Your task to perform on an android device: change notification settings in the gmail app Image 0: 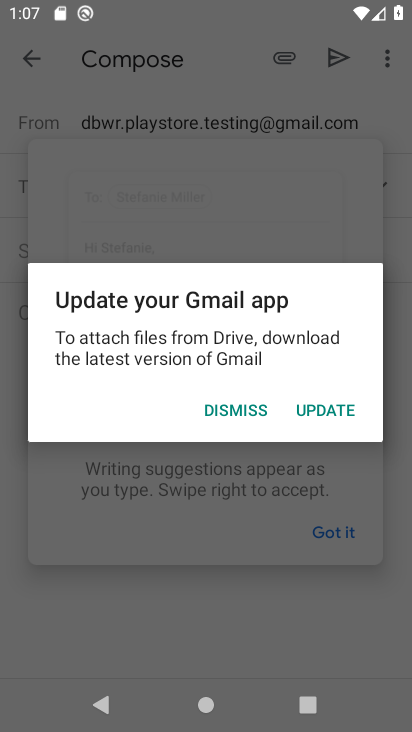
Step 0: press home button
Your task to perform on an android device: change notification settings in the gmail app Image 1: 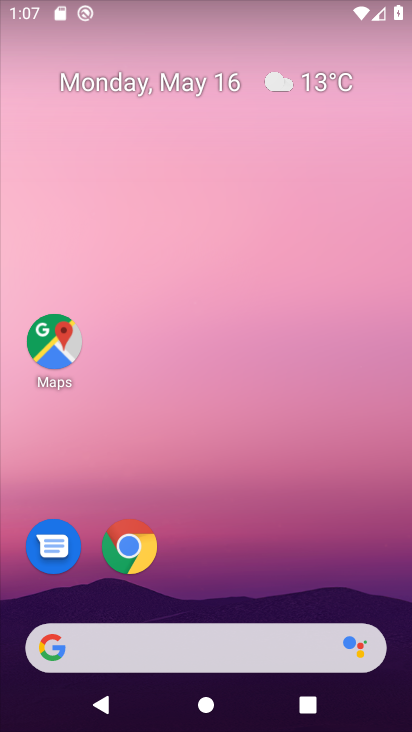
Step 1: drag from (203, 728) to (200, 203)
Your task to perform on an android device: change notification settings in the gmail app Image 2: 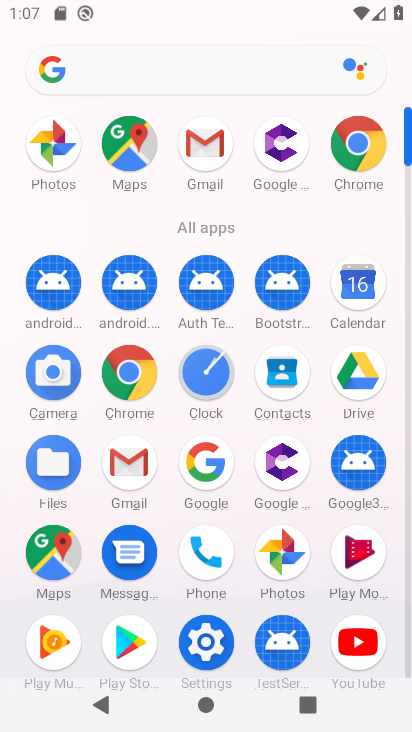
Step 2: click (128, 457)
Your task to perform on an android device: change notification settings in the gmail app Image 3: 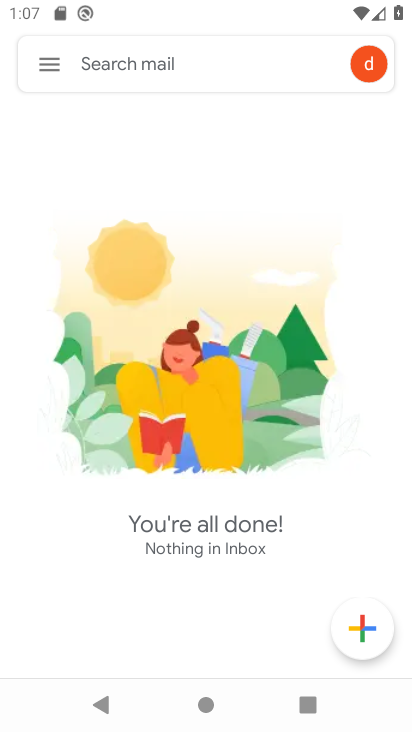
Step 3: click (60, 68)
Your task to perform on an android device: change notification settings in the gmail app Image 4: 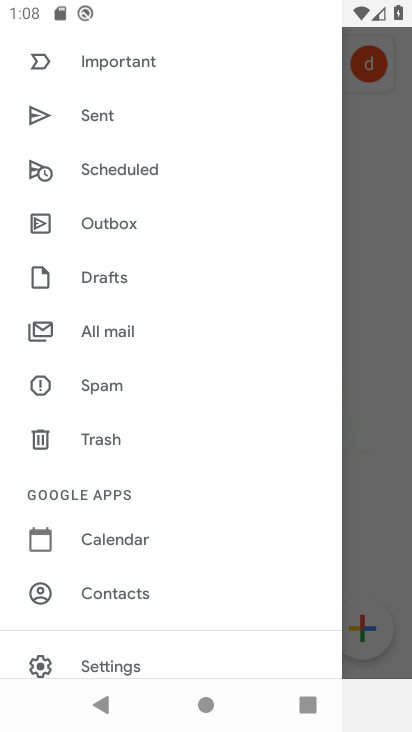
Step 4: drag from (115, 552) to (125, 265)
Your task to perform on an android device: change notification settings in the gmail app Image 5: 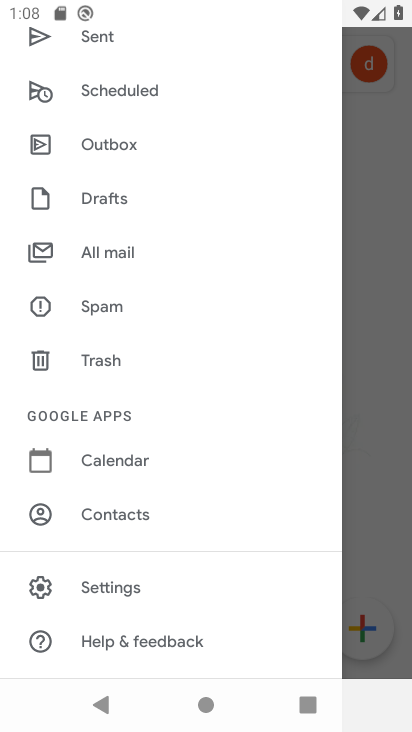
Step 5: click (104, 581)
Your task to perform on an android device: change notification settings in the gmail app Image 6: 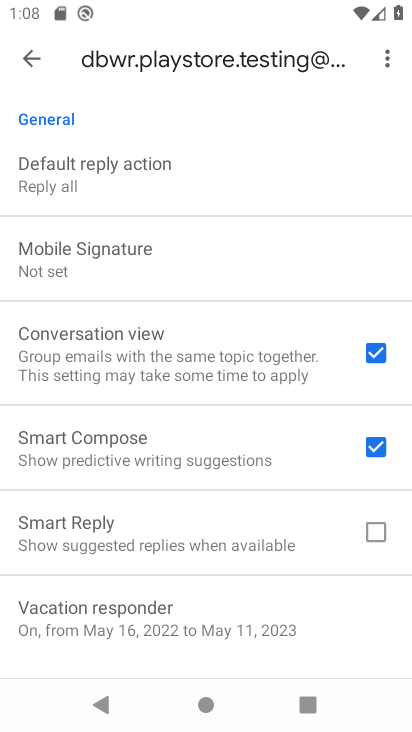
Step 6: drag from (99, 146) to (119, 513)
Your task to perform on an android device: change notification settings in the gmail app Image 7: 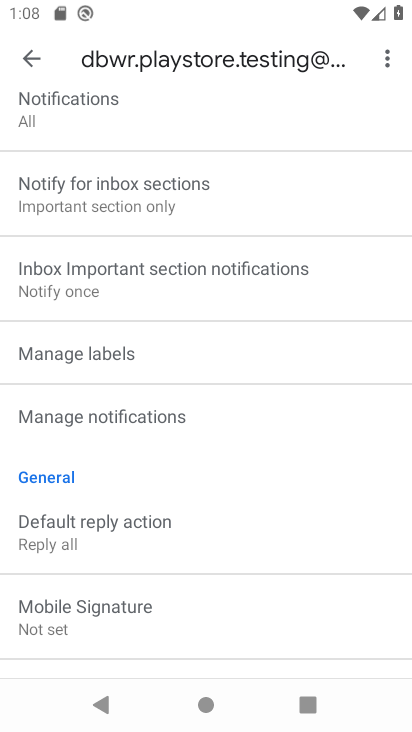
Step 7: drag from (134, 192) to (137, 386)
Your task to perform on an android device: change notification settings in the gmail app Image 8: 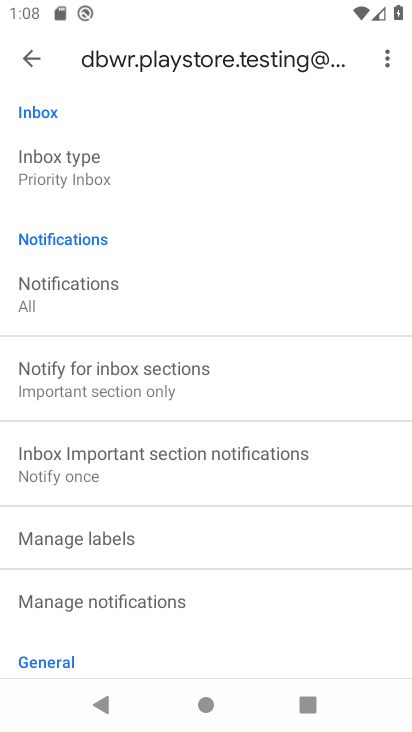
Step 8: click (64, 281)
Your task to perform on an android device: change notification settings in the gmail app Image 9: 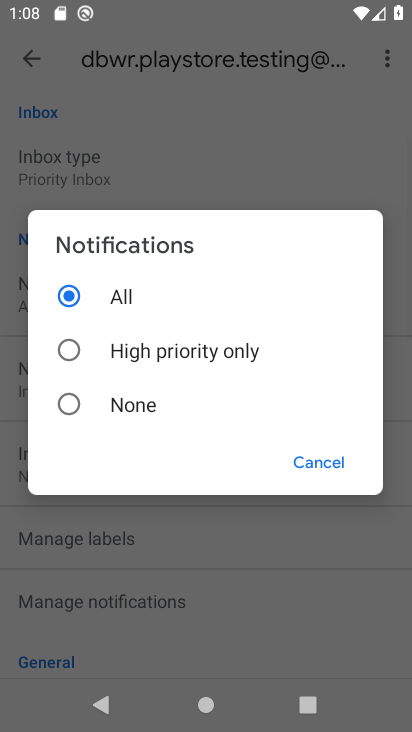
Step 9: click (71, 399)
Your task to perform on an android device: change notification settings in the gmail app Image 10: 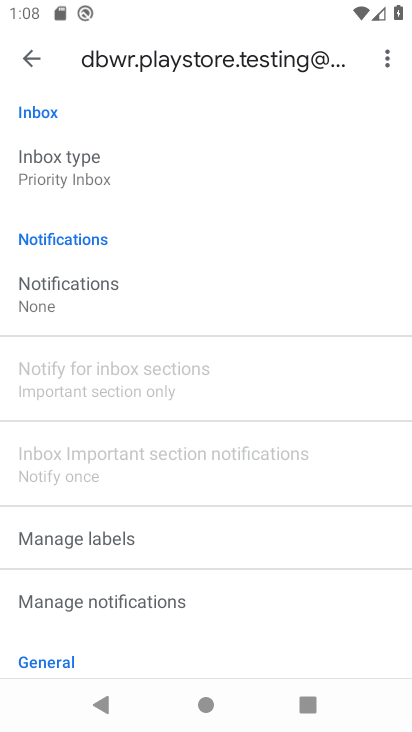
Step 10: task complete